Your task to perform on an android device: turn on wifi Image 0: 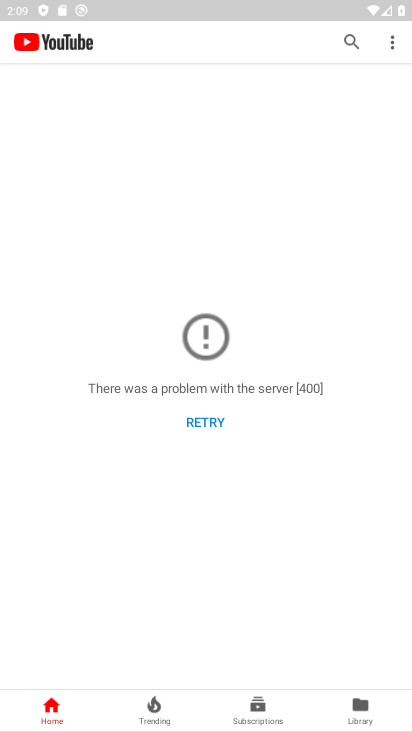
Step 0: press back button
Your task to perform on an android device: turn on wifi Image 1: 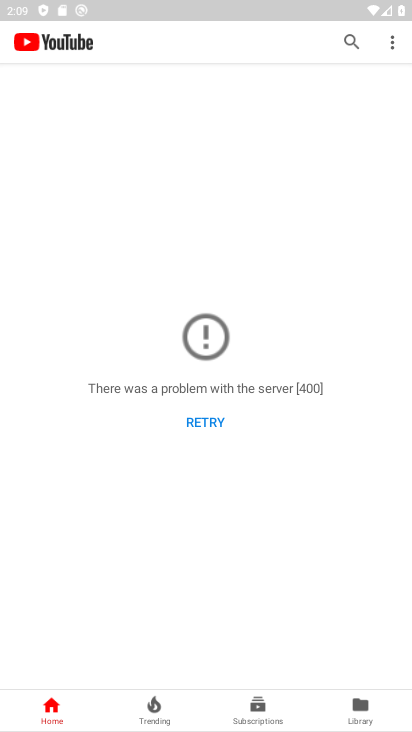
Step 1: press back button
Your task to perform on an android device: turn on wifi Image 2: 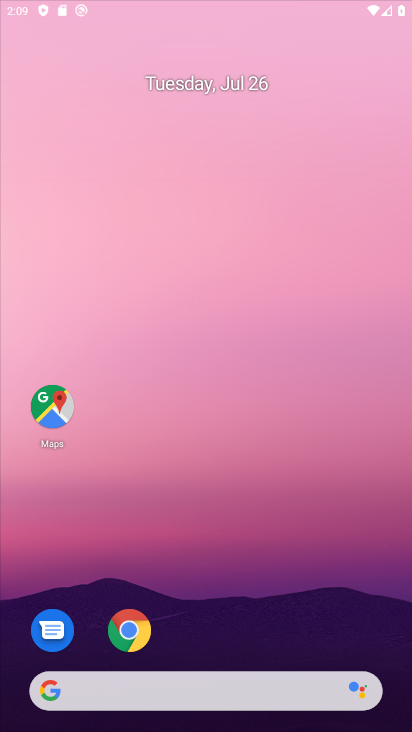
Step 2: press back button
Your task to perform on an android device: turn on wifi Image 3: 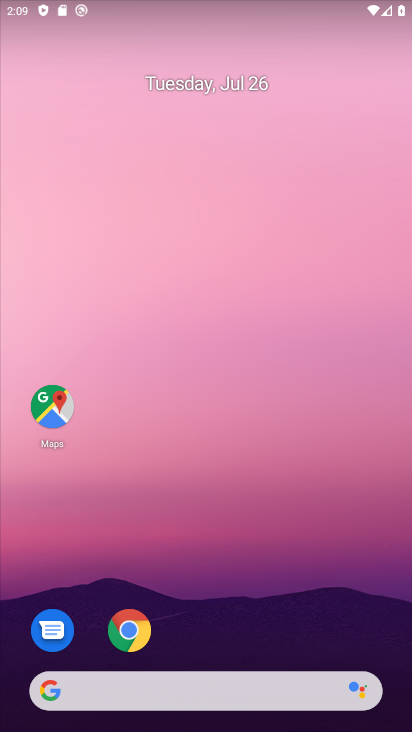
Step 3: drag from (272, 666) to (228, 218)
Your task to perform on an android device: turn on wifi Image 4: 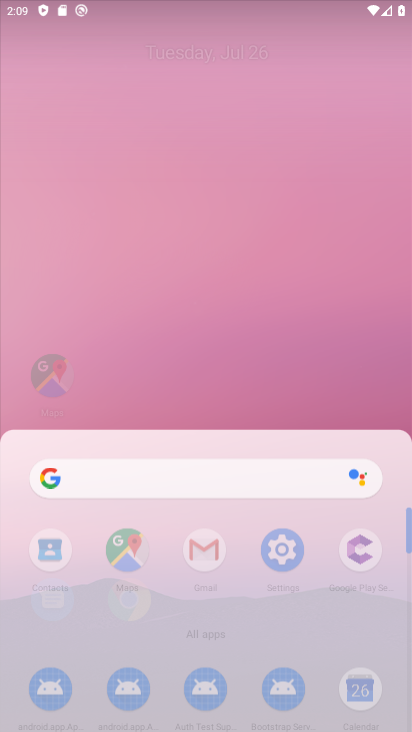
Step 4: drag from (328, 603) to (309, 186)
Your task to perform on an android device: turn on wifi Image 5: 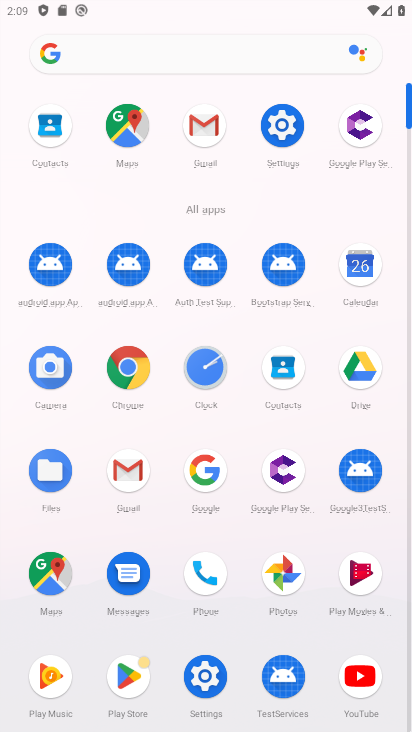
Step 5: click (290, 123)
Your task to perform on an android device: turn on wifi Image 6: 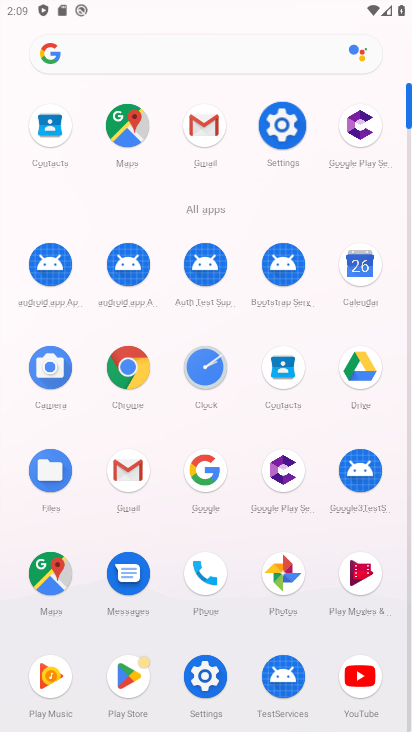
Step 6: click (283, 129)
Your task to perform on an android device: turn on wifi Image 7: 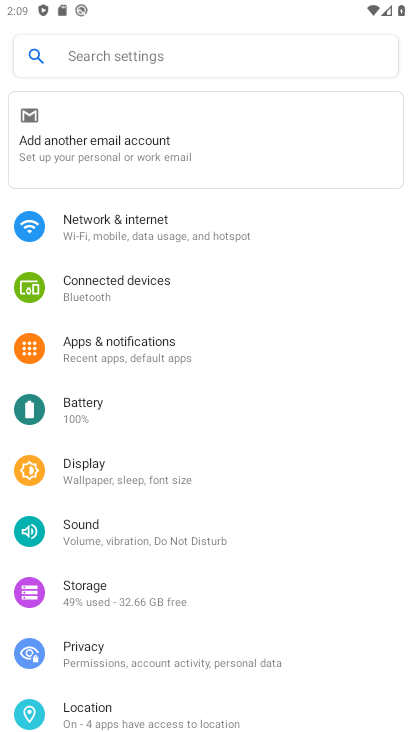
Step 7: click (134, 239)
Your task to perform on an android device: turn on wifi Image 8: 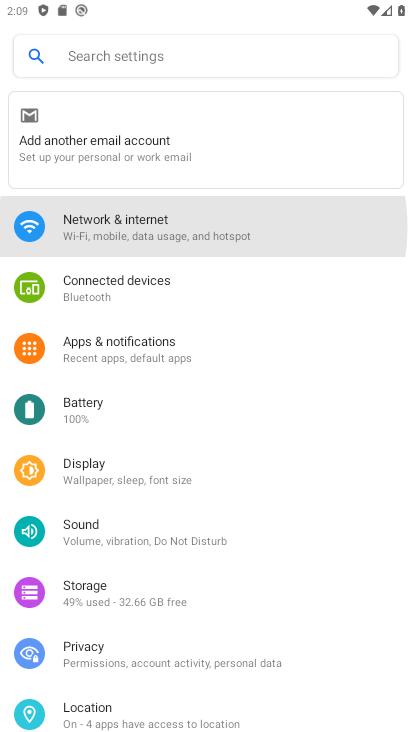
Step 8: click (154, 258)
Your task to perform on an android device: turn on wifi Image 9: 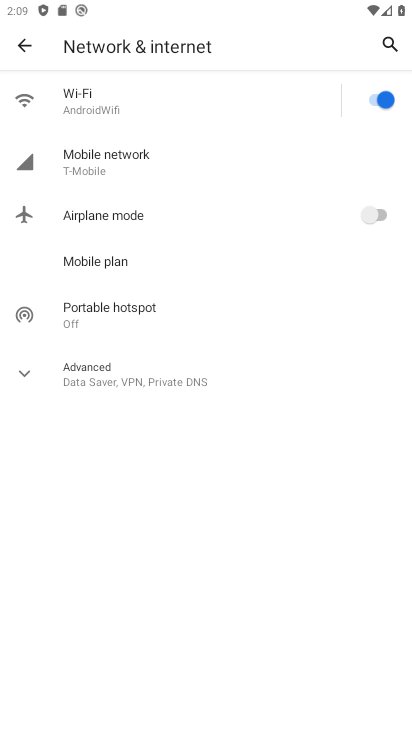
Step 9: task complete